Your task to perform on an android device: Play the new Justin Bieber video on YouTube Image 0: 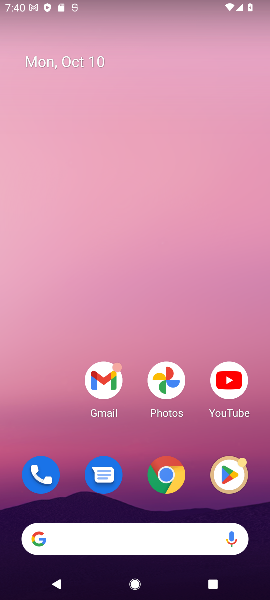
Step 0: click (231, 389)
Your task to perform on an android device: Play the new Justin Bieber video on YouTube Image 1: 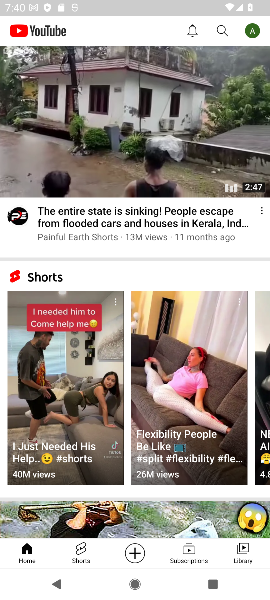
Step 1: click (218, 32)
Your task to perform on an android device: Play the new Justin Bieber video on YouTube Image 2: 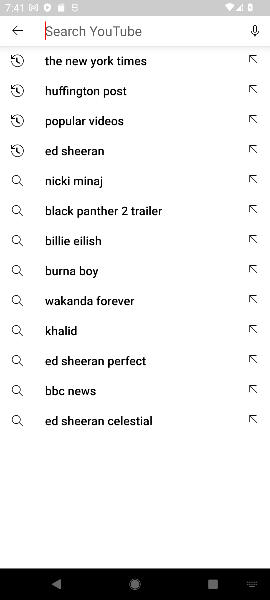
Step 2: type "new justin bieber video"
Your task to perform on an android device: Play the new Justin Bieber video on YouTube Image 3: 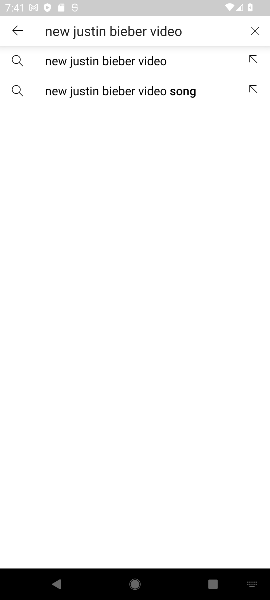
Step 3: click (114, 66)
Your task to perform on an android device: Play the new Justin Bieber video on YouTube Image 4: 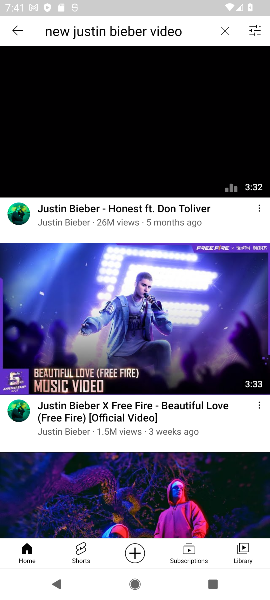
Step 4: click (151, 304)
Your task to perform on an android device: Play the new Justin Bieber video on YouTube Image 5: 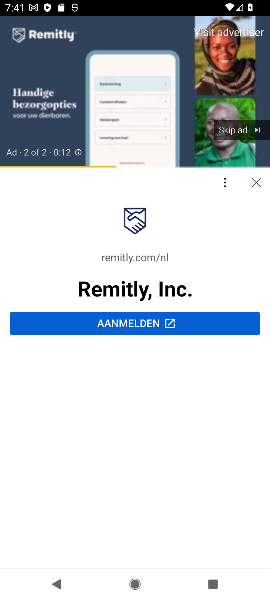
Step 5: click (228, 127)
Your task to perform on an android device: Play the new Justin Bieber video on YouTube Image 6: 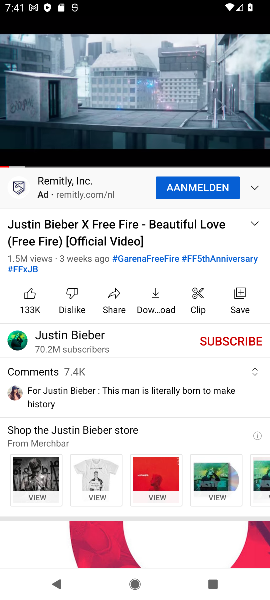
Step 6: task complete